Your task to perform on an android device: toggle airplane mode Image 0: 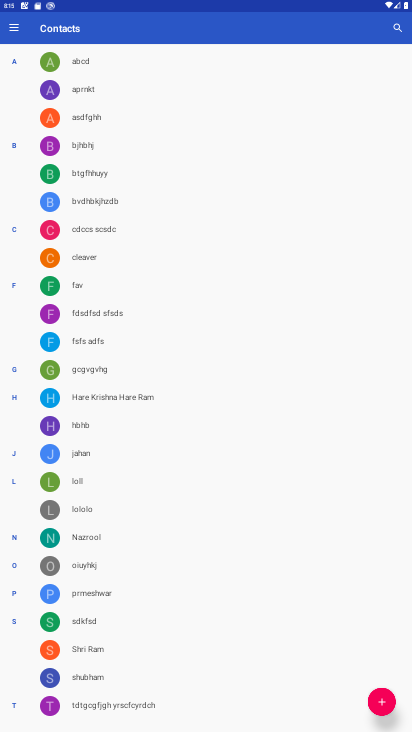
Step 0: press home button
Your task to perform on an android device: toggle airplane mode Image 1: 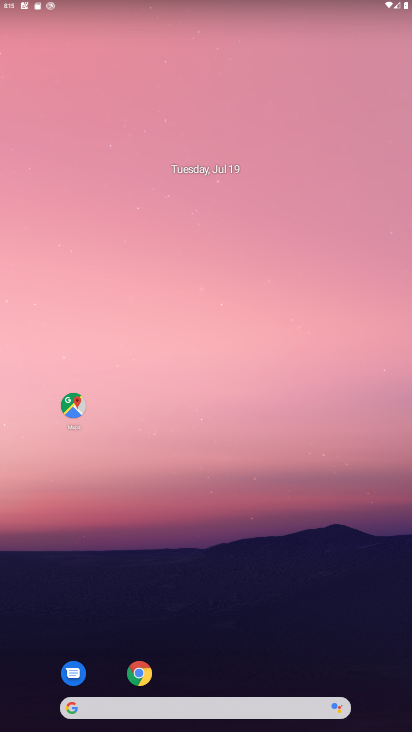
Step 1: drag from (214, 709) to (205, 105)
Your task to perform on an android device: toggle airplane mode Image 2: 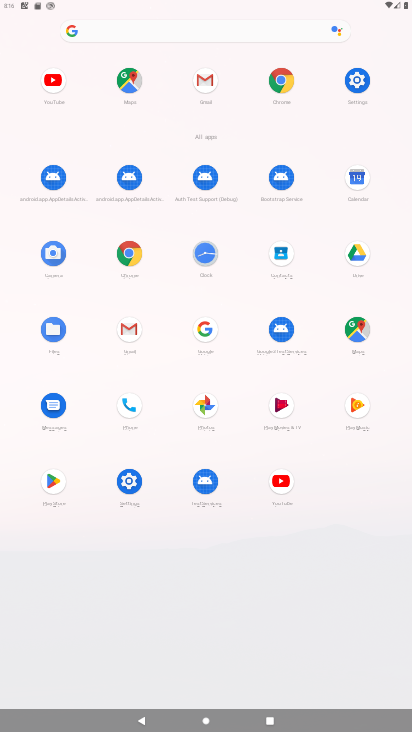
Step 2: click (361, 83)
Your task to perform on an android device: toggle airplane mode Image 3: 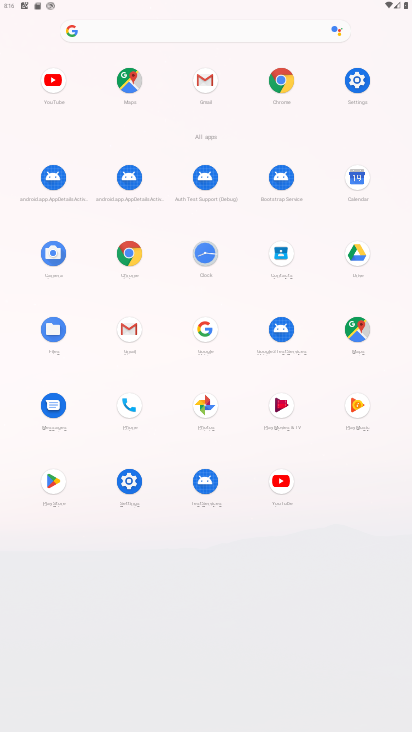
Step 3: click (358, 82)
Your task to perform on an android device: toggle airplane mode Image 4: 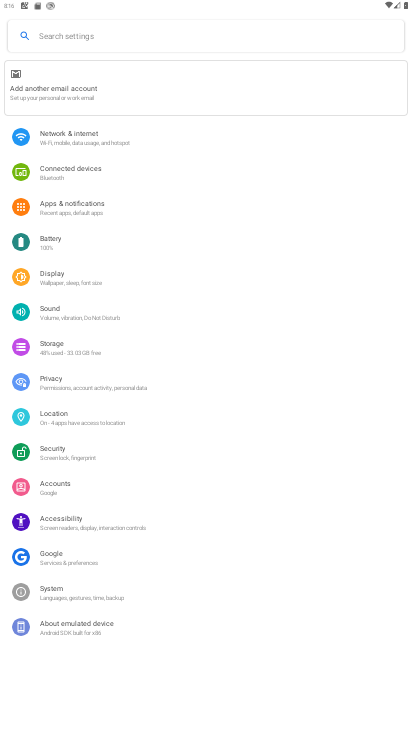
Step 4: click (85, 132)
Your task to perform on an android device: toggle airplane mode Image 5: 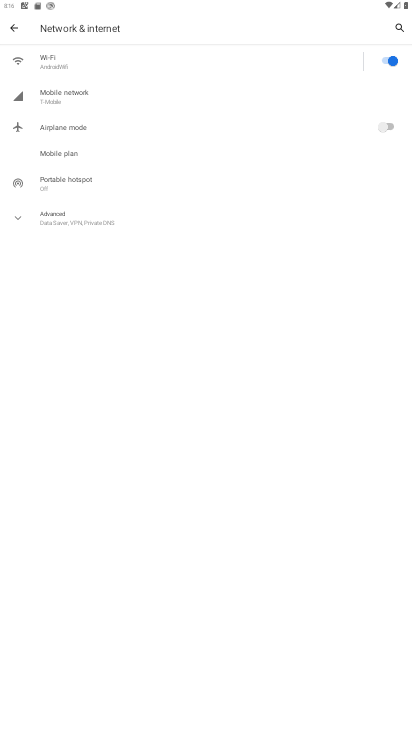
Step 5: click (386, 126)
Your task to perform on an android device: toggle airplane mode Image 6: 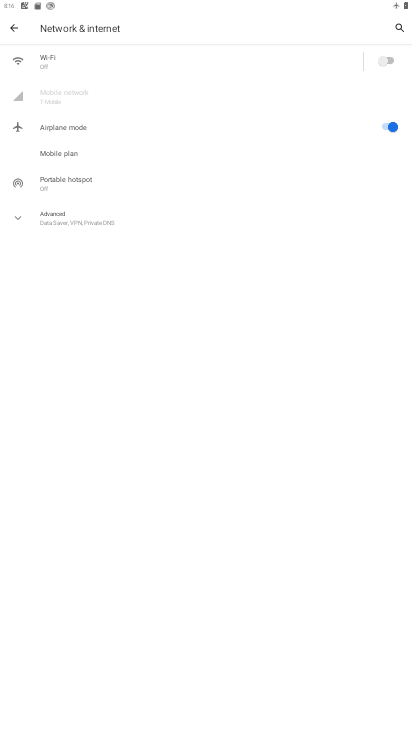
Step 6: task complete